Your task to perform on an android device: open app "AliExpress" Image 0: 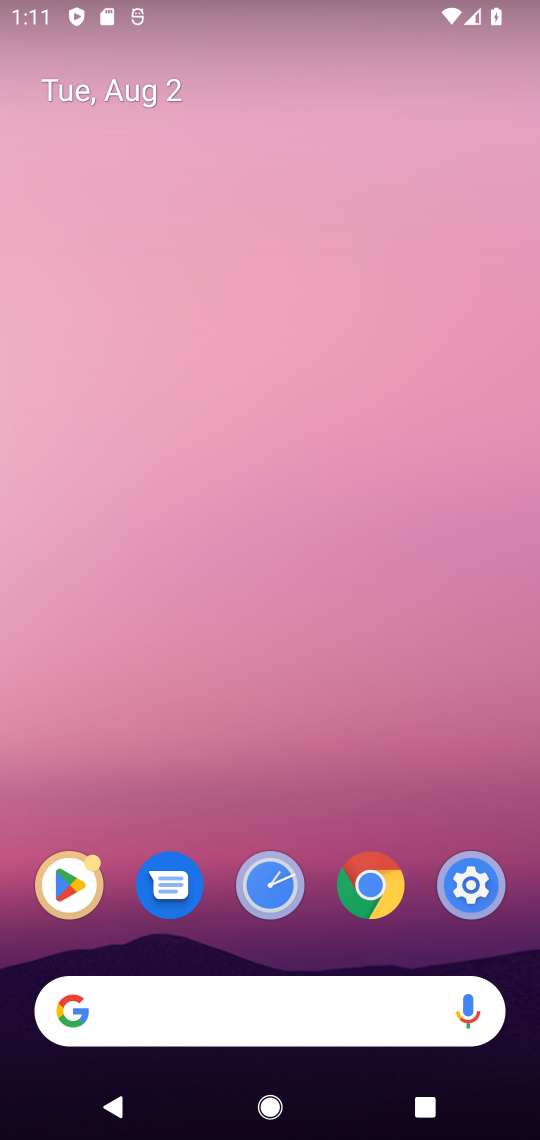
Step 0: click (57, 896)
Your task to perform on an android device: open app "AliExpress" Image 1: 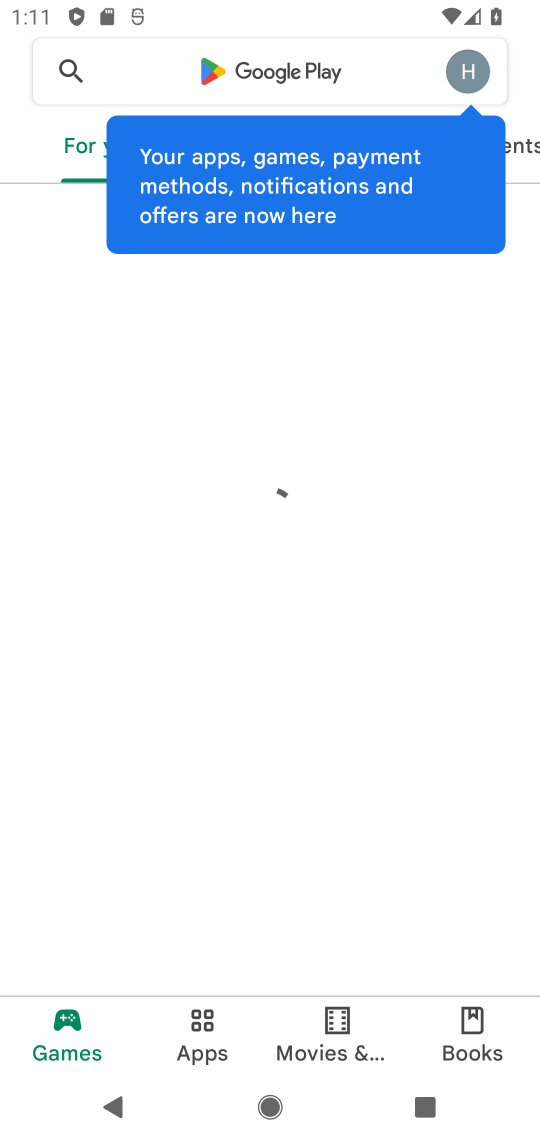
Step 1: click (299, 72)
Your task to perform on an android device: open app "AliExpress" Image 2: 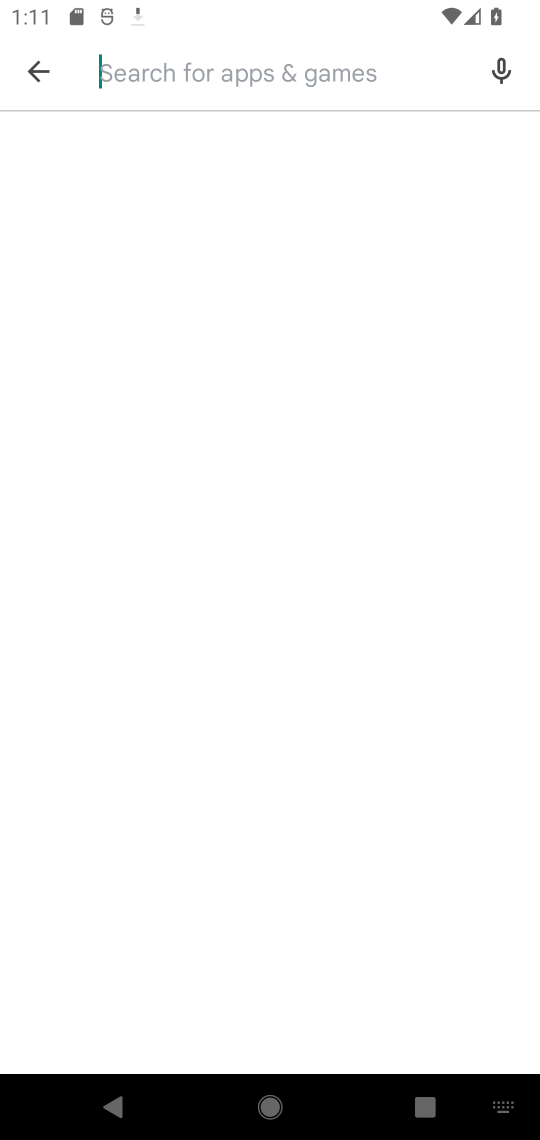
Step 2: type "aliexpresss"
Your task to perform on an android device: open app "AliExpress" Image 3: 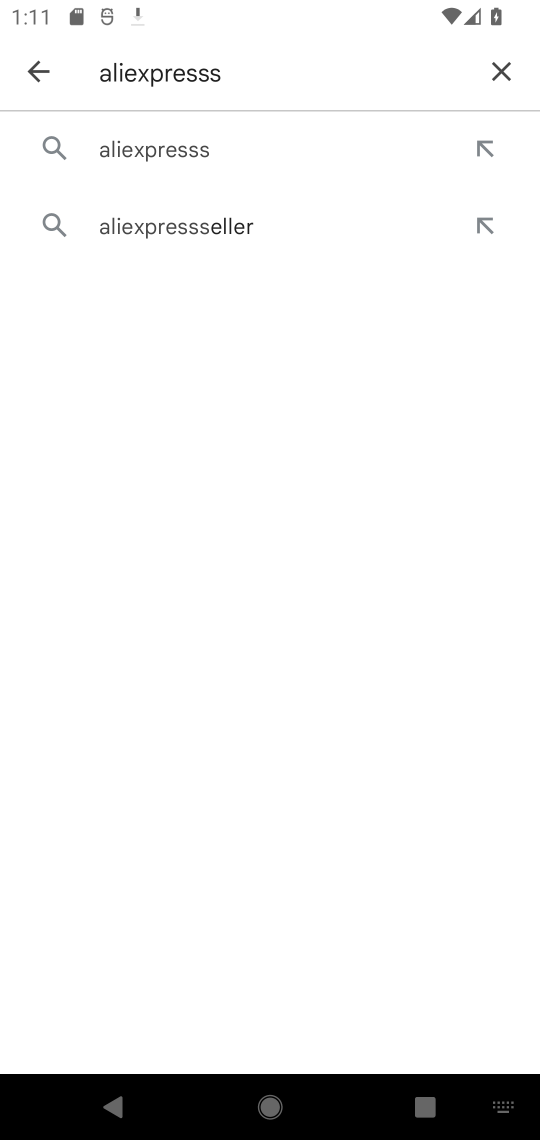
Step 3: click (142, 150)
Your task to perform on an android device: open app "AliExpress" Image 4: 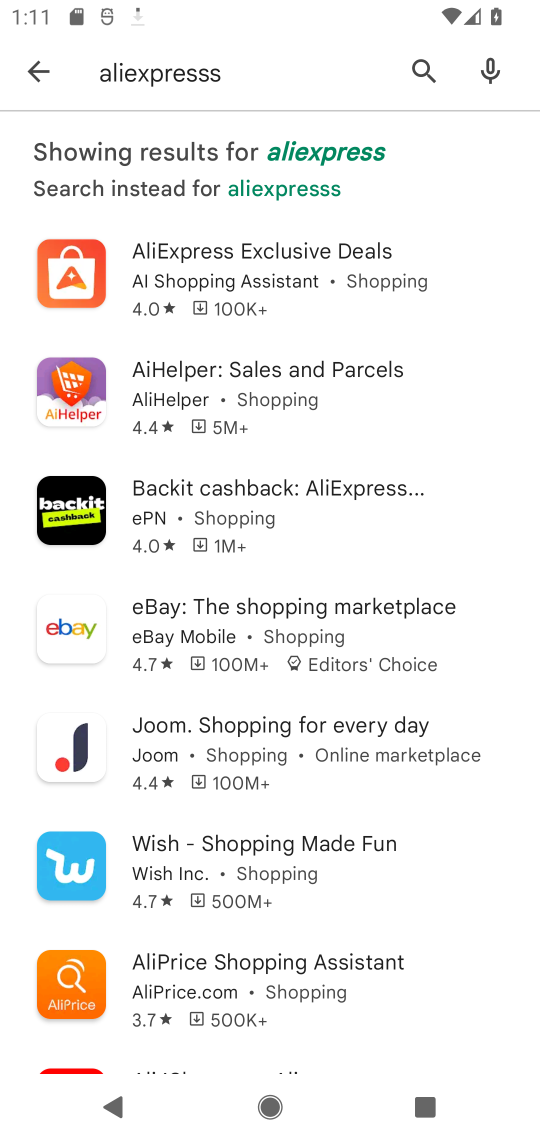
Step 4: click (156, 254)
Your task to perform on an android device: open app "AliExpress" Image 5: 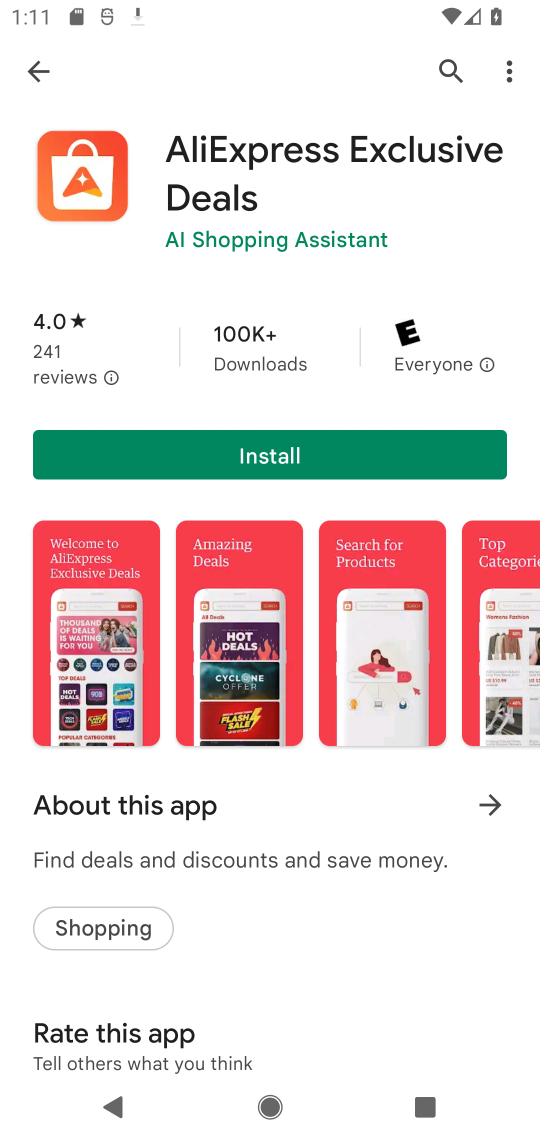
Step 5: task complete